Your task to perform on an android device: Open Maps and search for coffee Image 0: 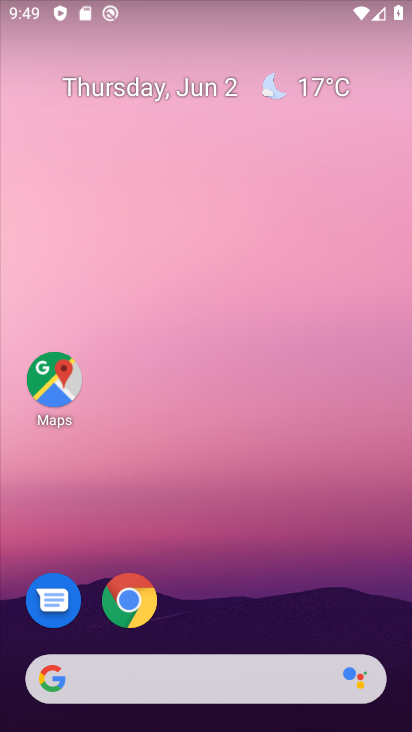
Step 0: drag from (270, 540) to (179, 2)
Your task to perform on an android device: Open Maps and search for coffee Image 1: 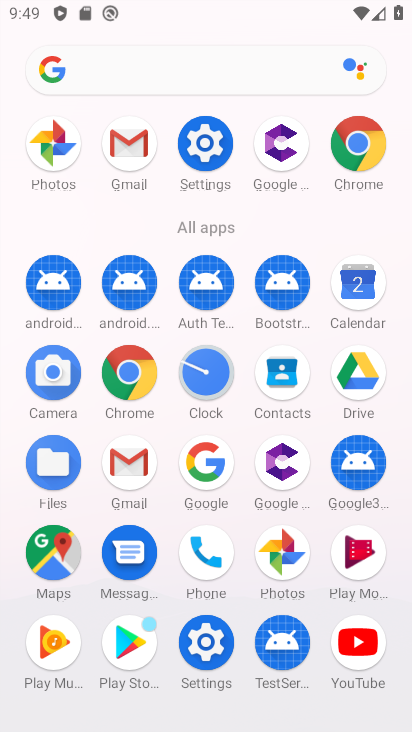
Step 1: drag from (2, 593) to (7, 328)
Your task to perform on an android device: Open Maps and search for coffee Image 2: 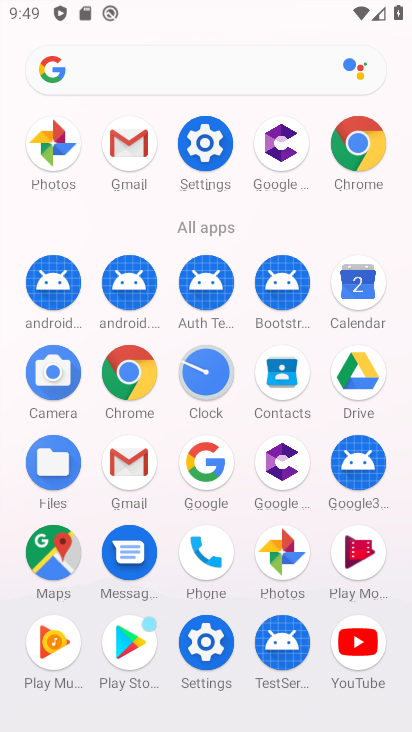
Step 2: drag from (5, 549) to (5, 266)
Your task to perform on an android device: Open Maps and search for coffee Image 3: 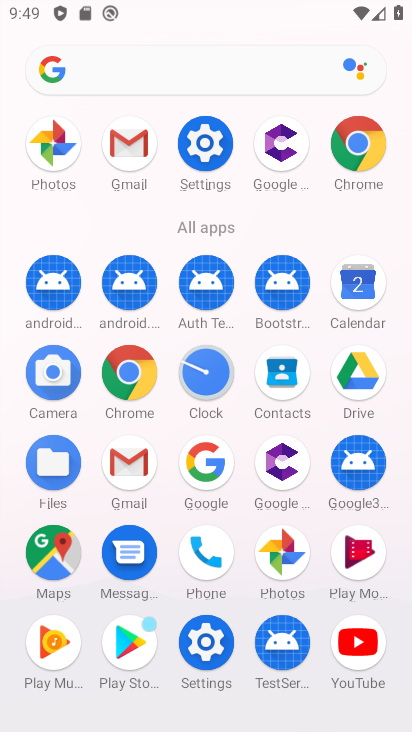
Step 3: click (49, 547)
Your task to perform on an android device: Open Maps and search for coffee Image 4: 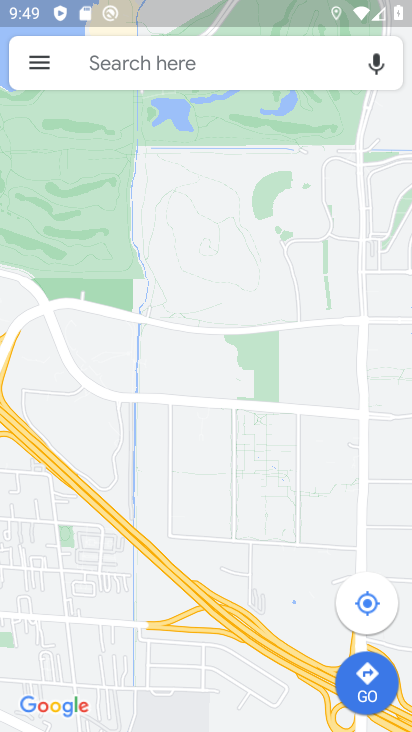
Step 4: click (235, 74)
Your task to perform on an android device: Open Maps and search for coffee Image 5: 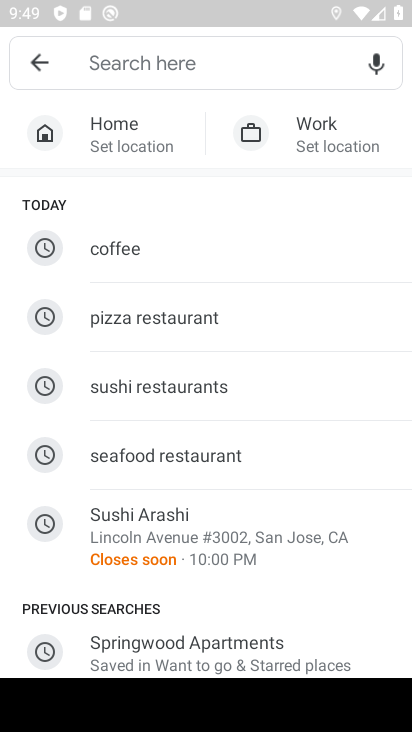
Step 5: click (219, 255)
Your task to perform on an android device: Open Maps and search for coffee Image 6: 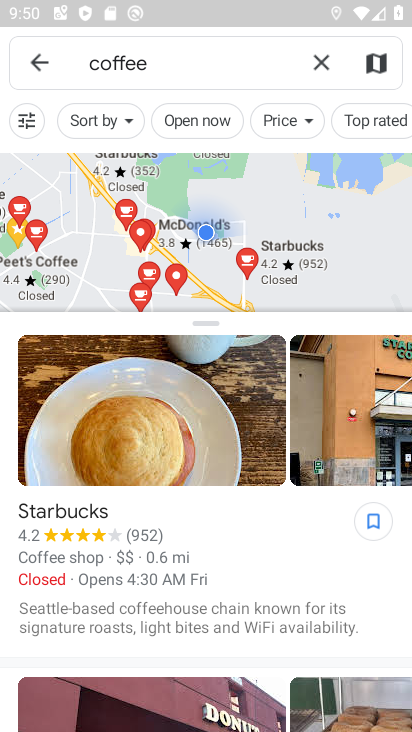
Step 6: task complete